Your task to perform on an android device: open chrome and create a bookmark for the current page Image 0: 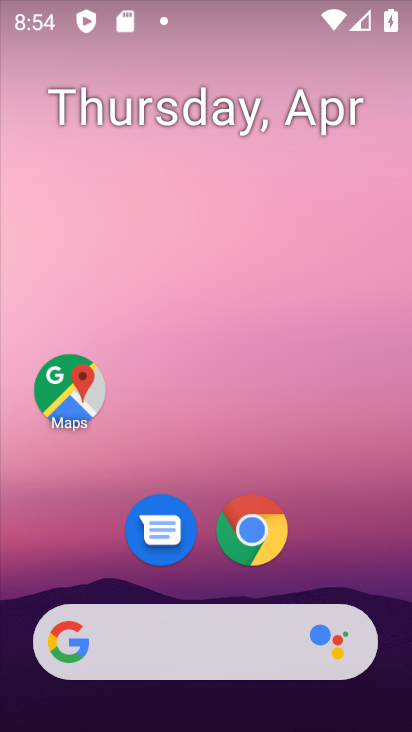
Step 0: drag from (371, 584) to (252, 32)
Your task to perform on an android device: open chrome and create a bookmark for the current page Image 1: 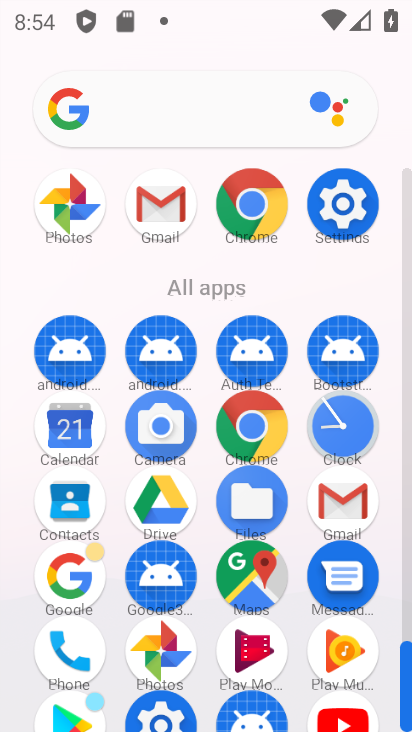
Step 1: click (255, 416)
Your task to perform on an android device: open chrome and create a bookmark for the current page Image 2: 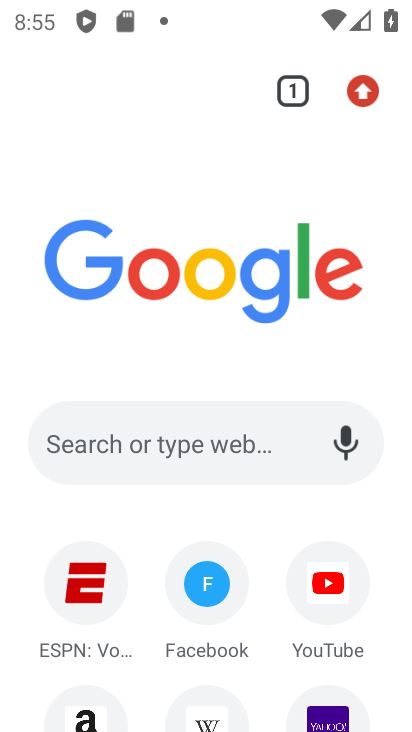
Step 2: click (353, 81)
Your task to perform on an android device: open chrome and create a bookmark for the current page Image 3: 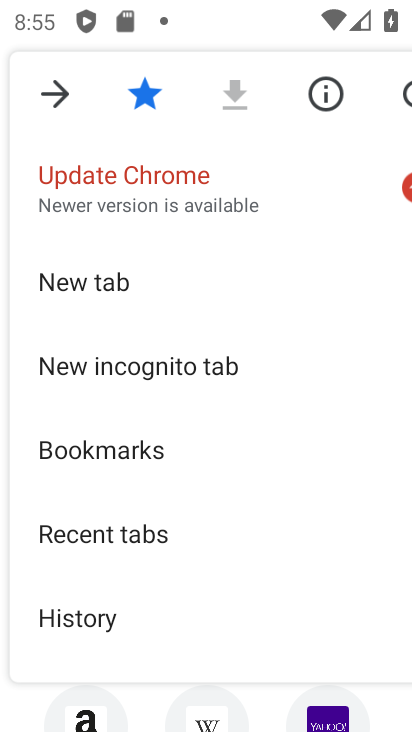
Step 3: task complete